Your task to perform on an android device: Go to accessibility settings Image 0: 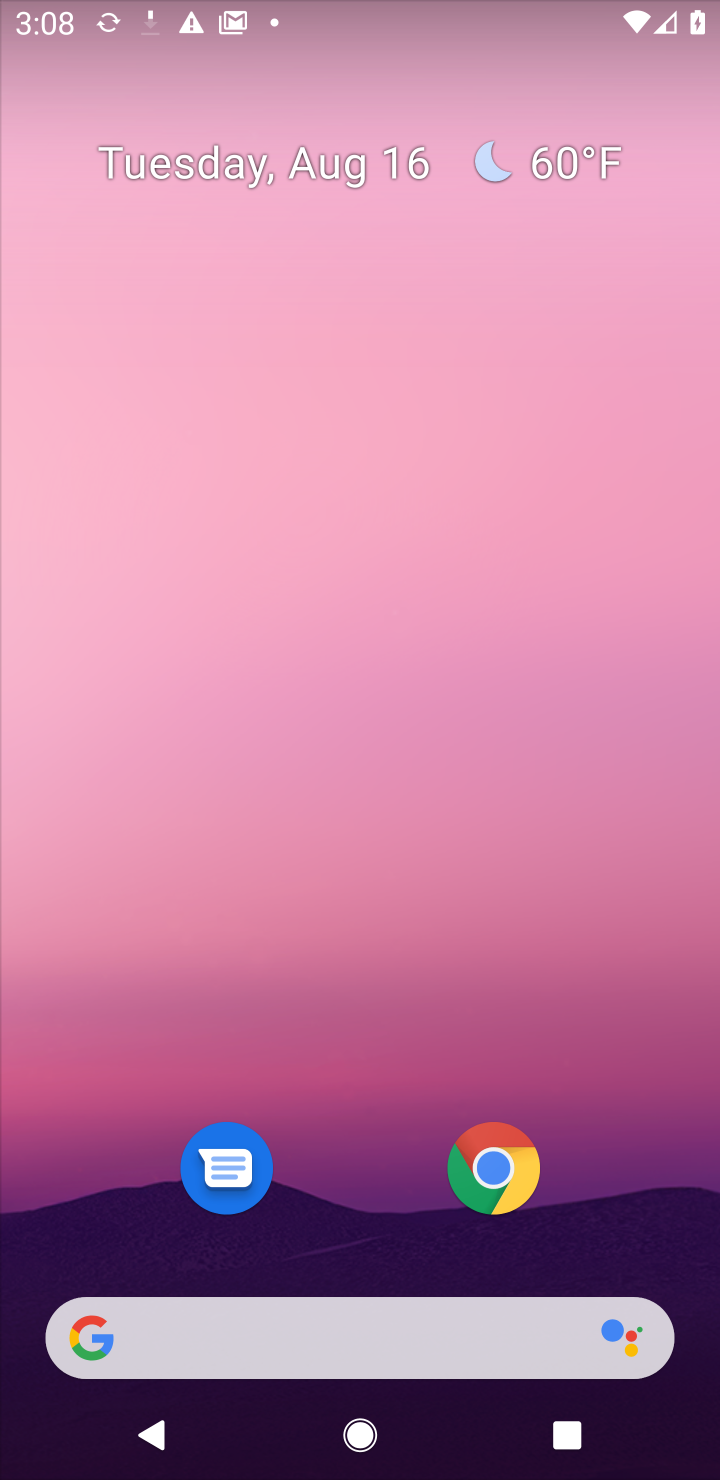
Step 0: press home button
Your task to perform on an android device: Go to accessibility settings Image 1: 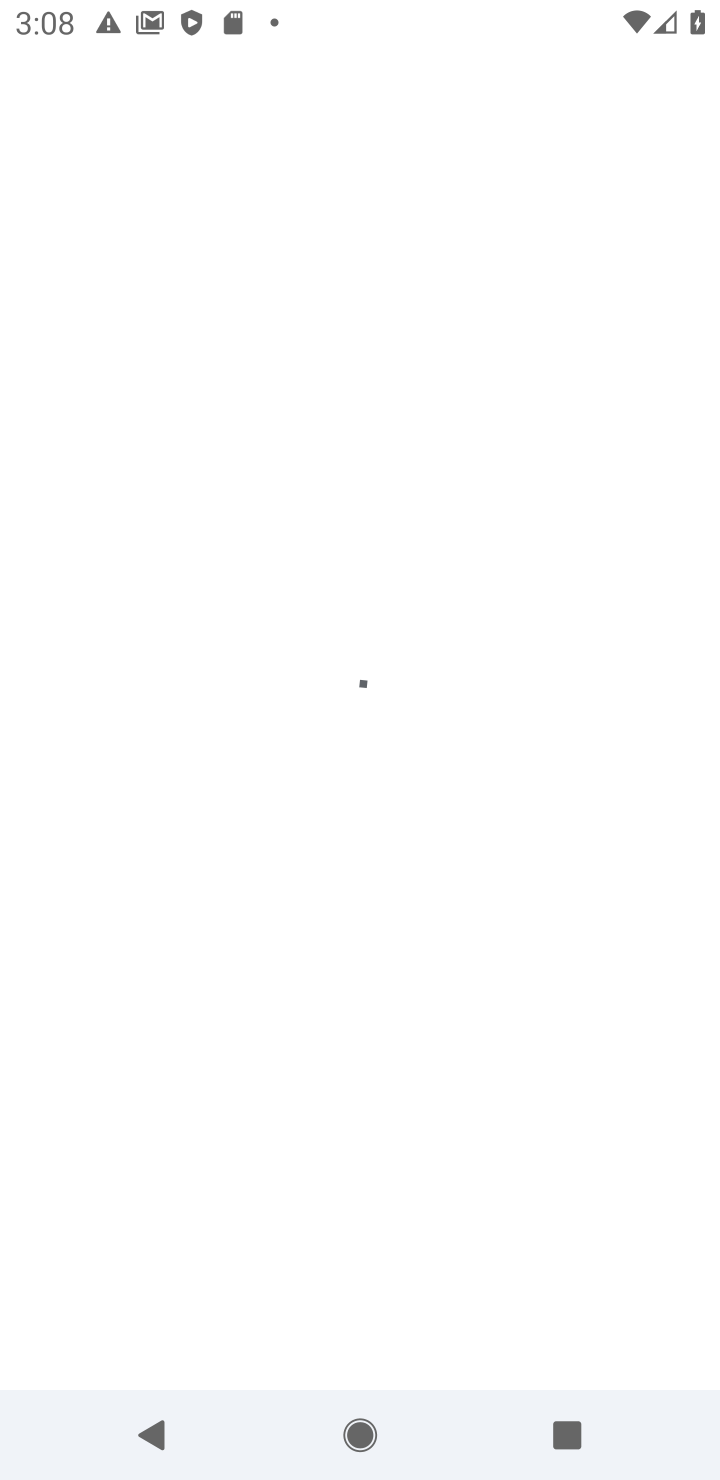
Step 1: drag from (415, 1117) to (487, 248)
Your task to perform on an android device: Go to accessibility settings Image 2: 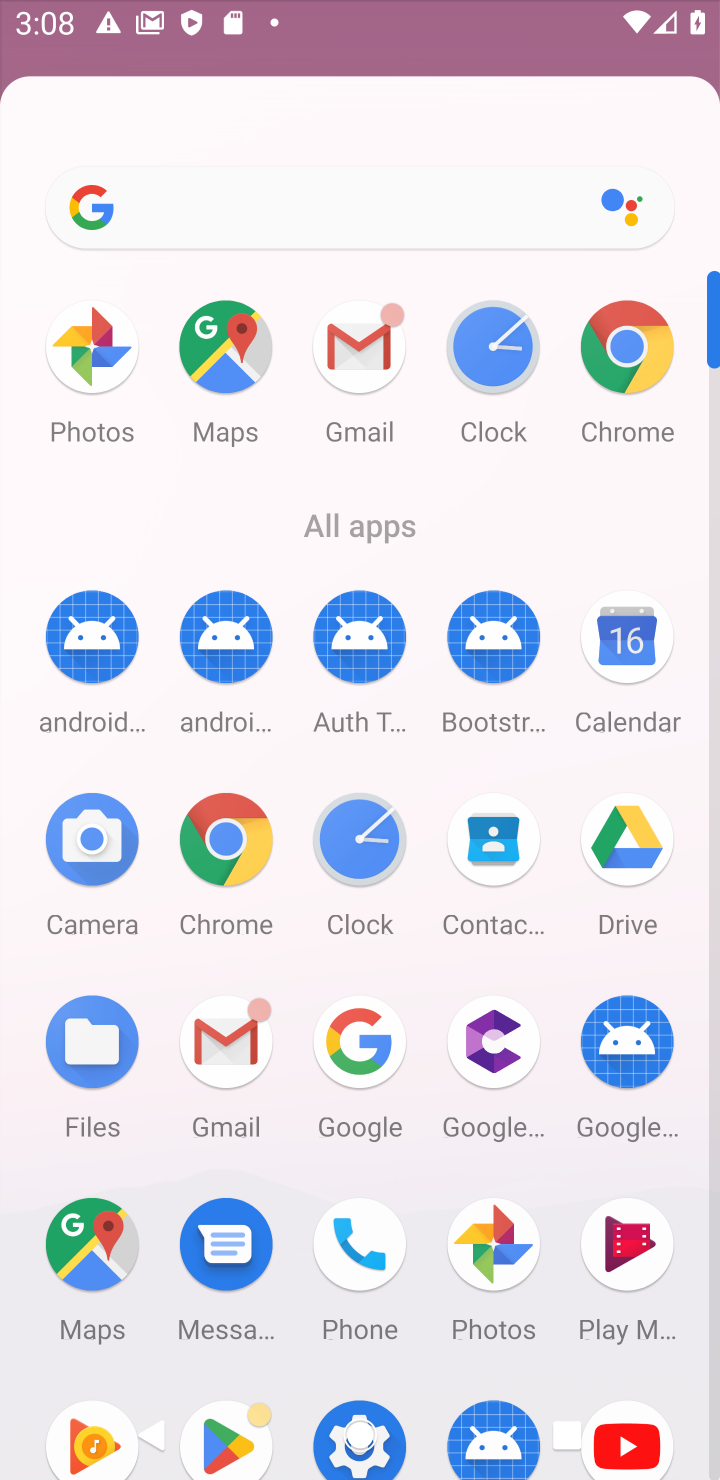
Step 2: drag from (309, 1337) to (478, 357)
Your task to perform on an android device: Go to accessibility settings Image 3: 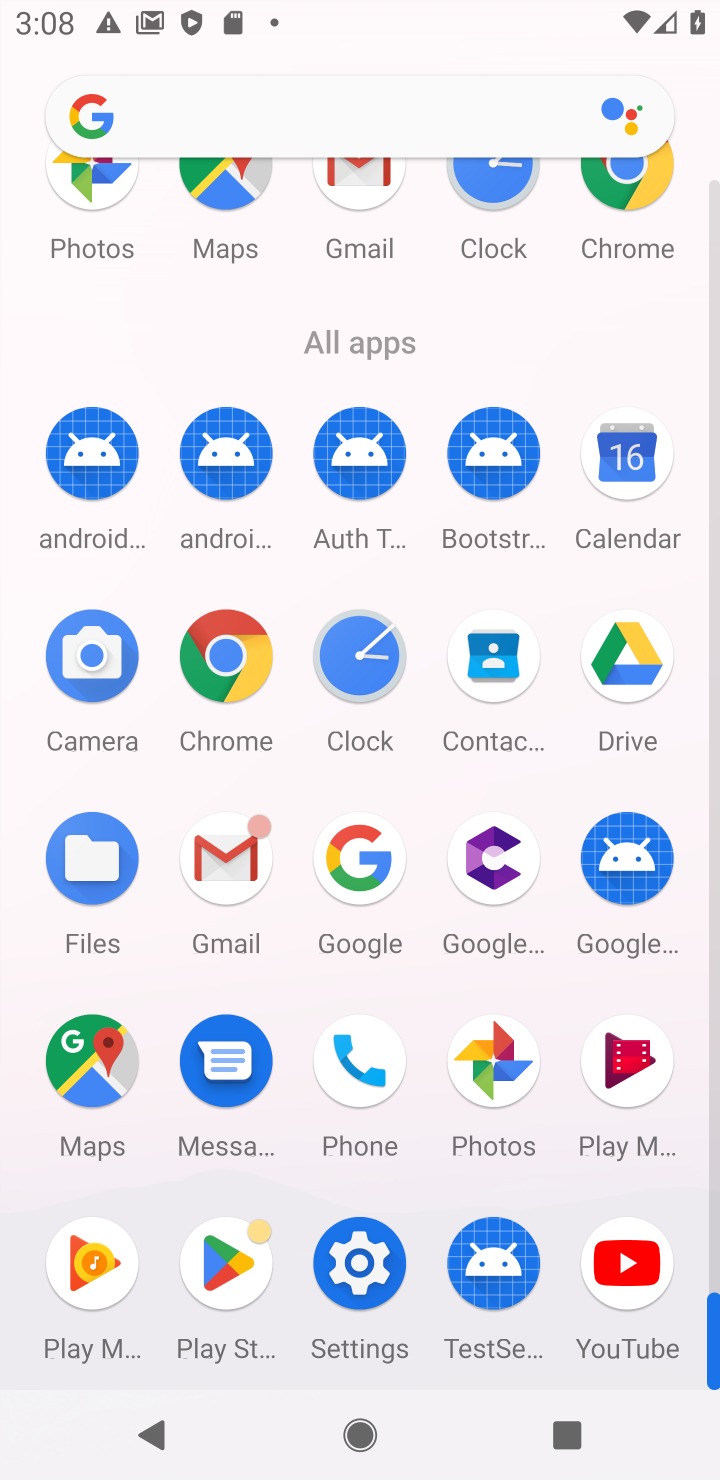
Step 3: click (356, 1279)
Your task to perform on an android device: Go to accessibility settings Image 4: 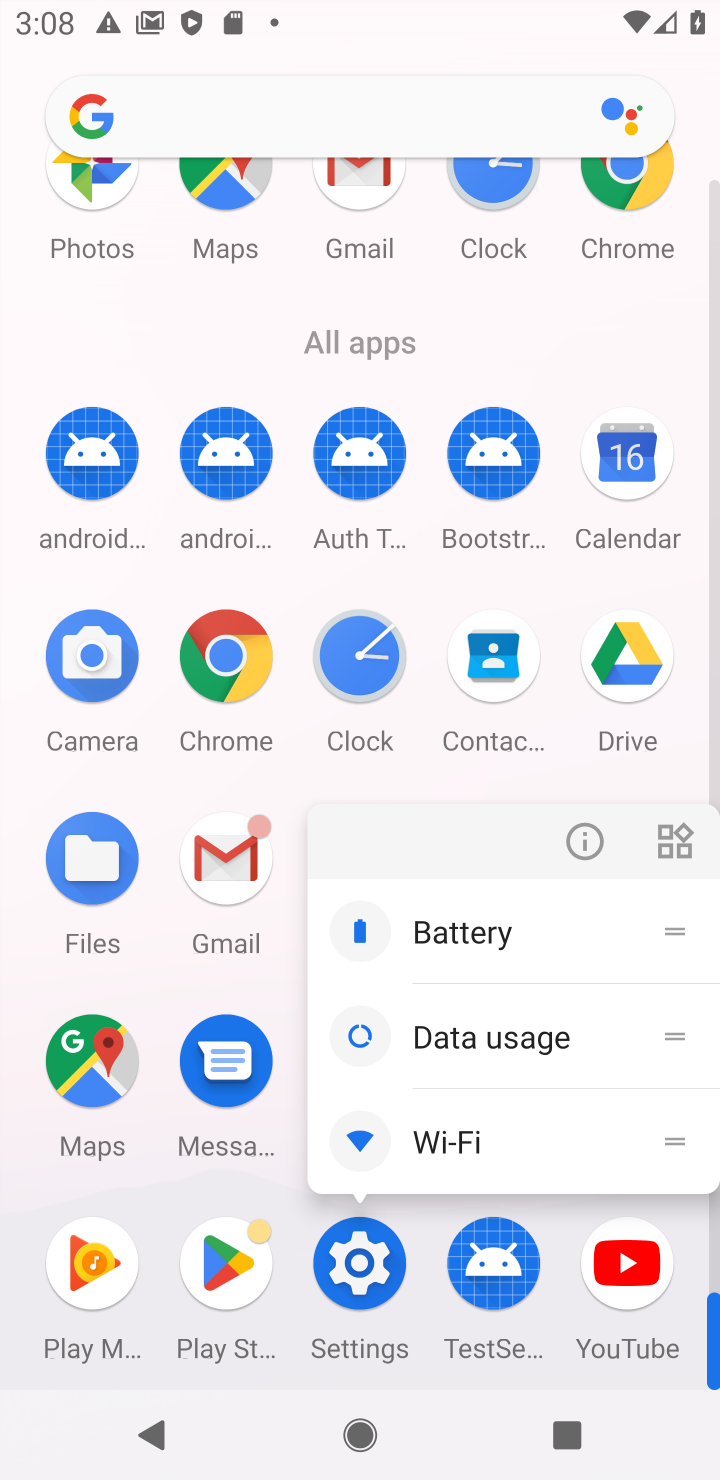
Step 4: click (359, 1261)
Your task to perform on an android device: Go to accessibility settings Image 5: 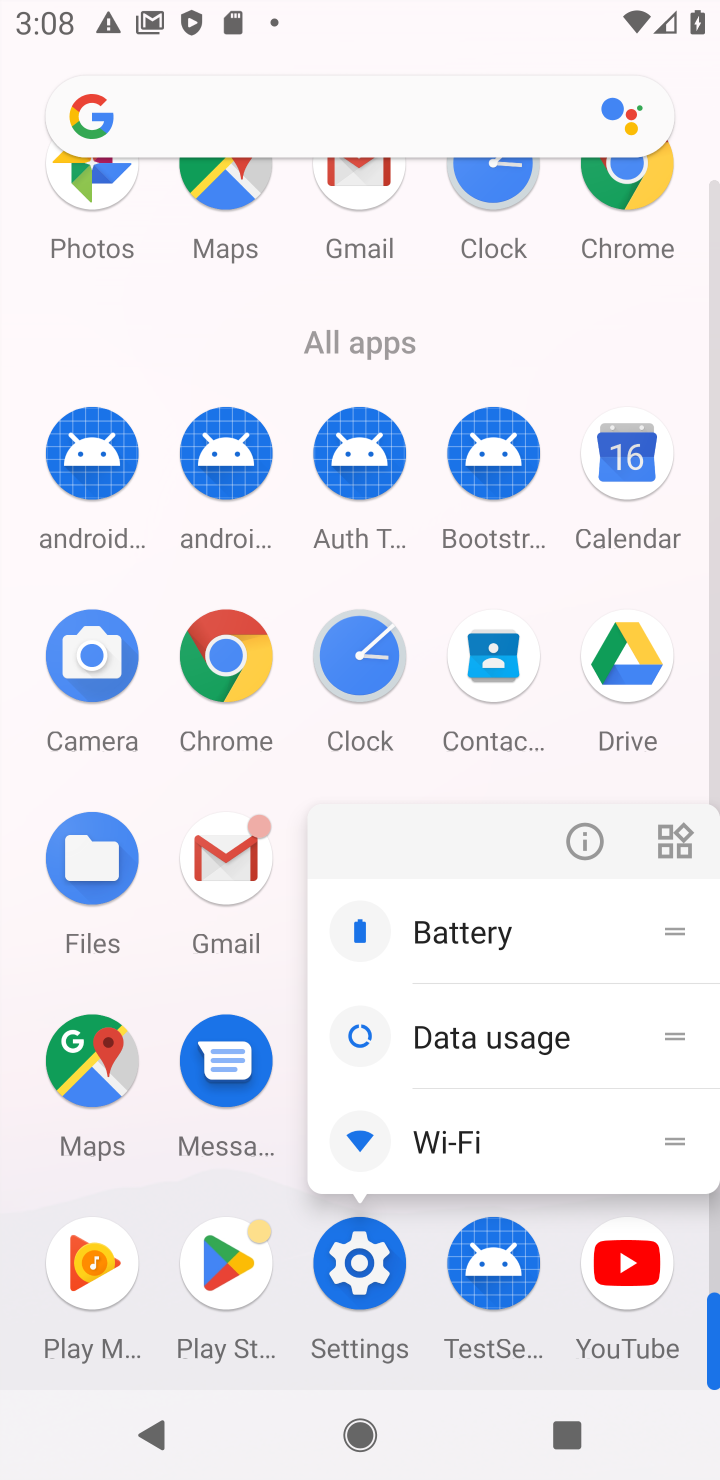
Step 5: click (359, 1261)
Your task to perform on an android device: Go to accessibility settings Image 6: 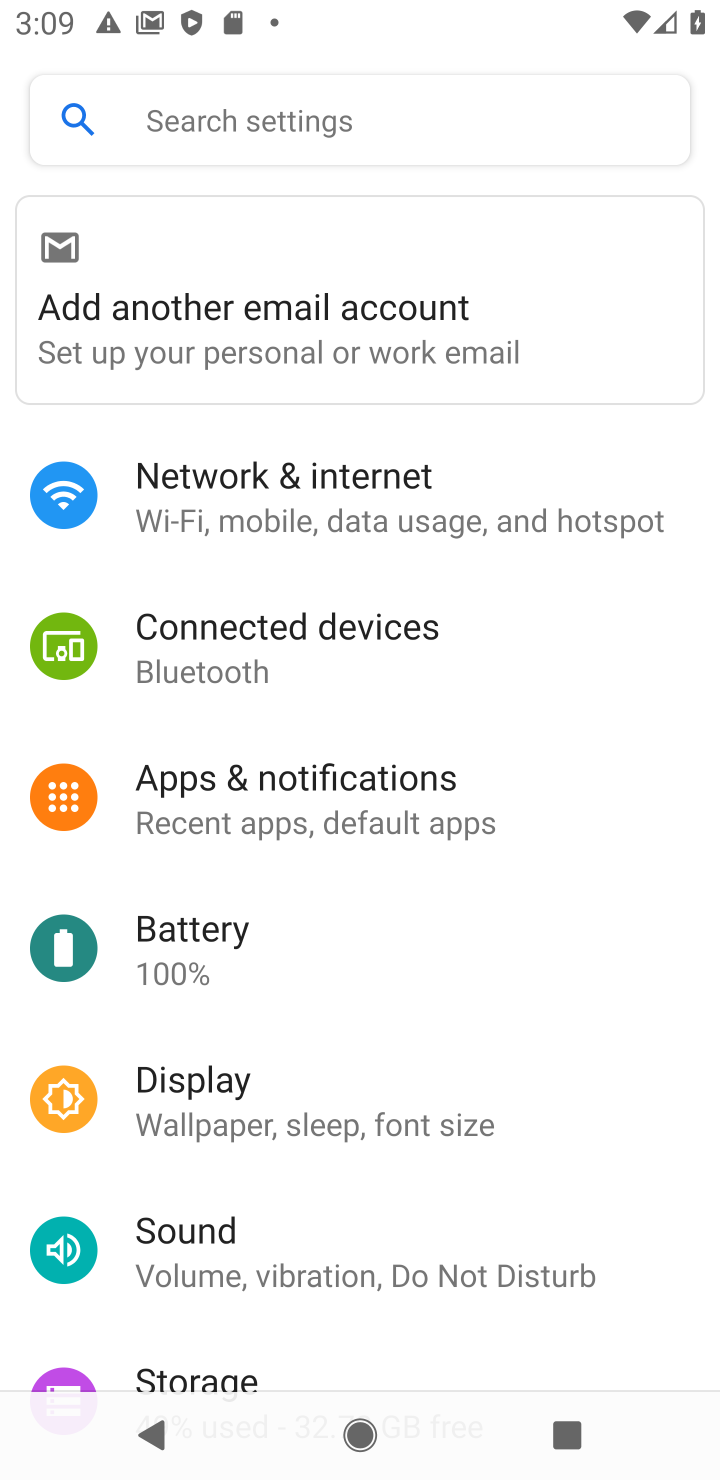
Step 6: drag from (460, 1226) to (574, 215)
Your task to perform on an android device: Go to accessibility settings Image 7: 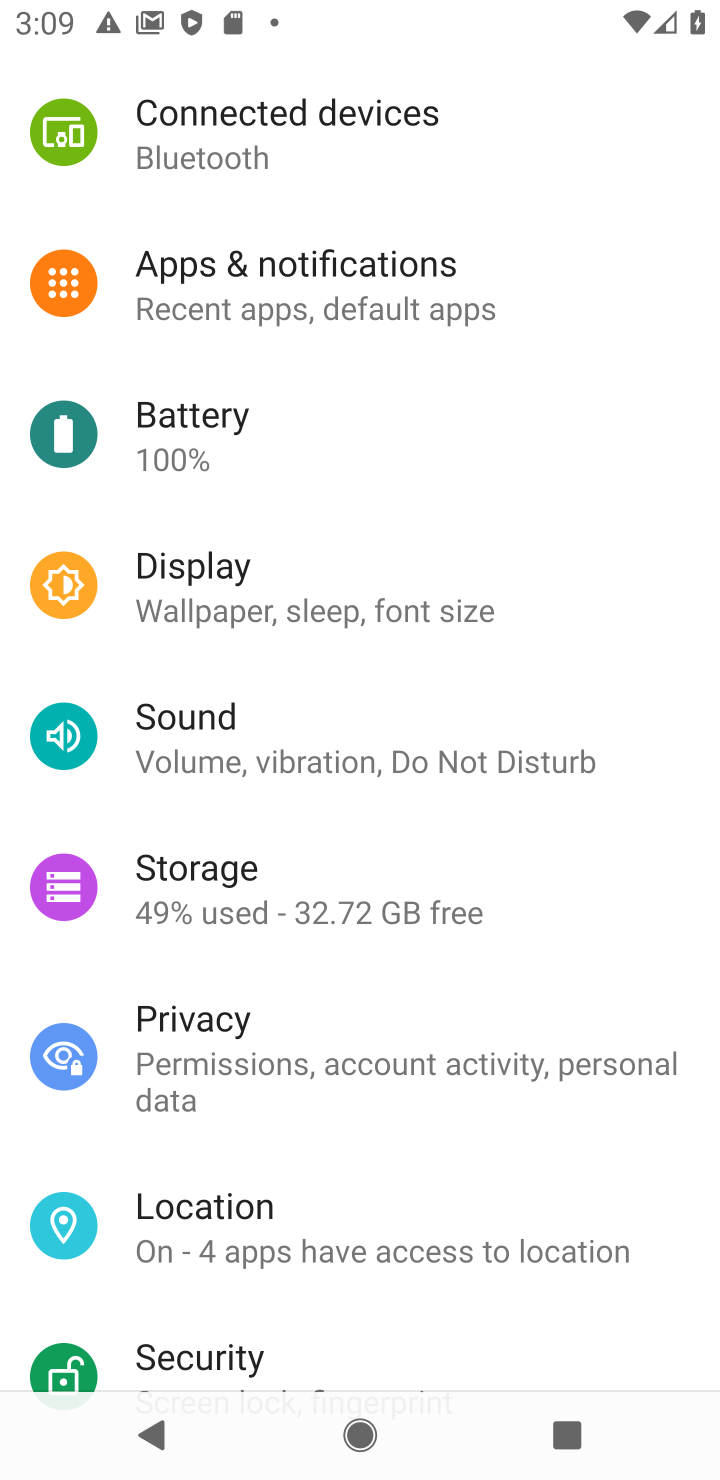
Step 7: drag from (391, 1273) to (473, 139)
Your task to perform on an android device: Go to accessibility settings Image 8: 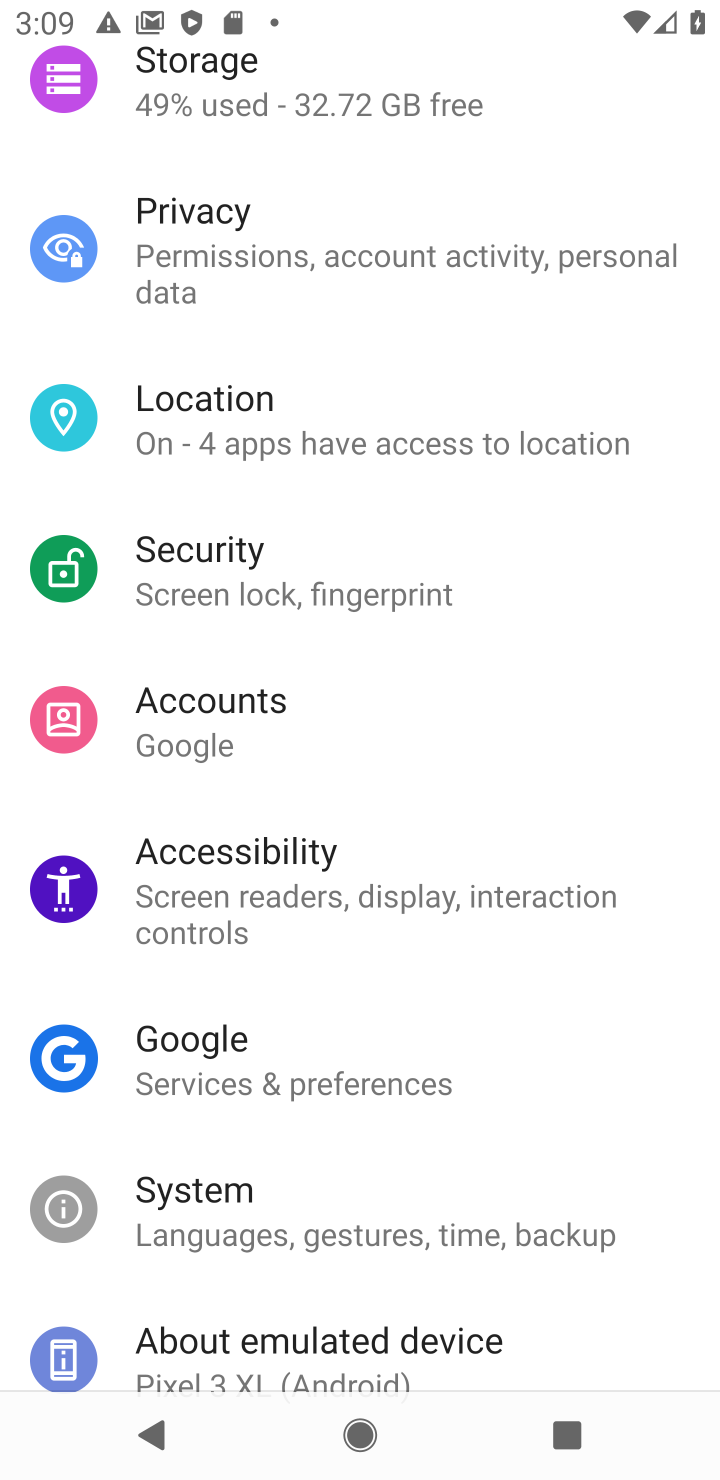
Step 8: click (295, 873)
Your task to perform on an android device: Go to accessibility settings Image 9: 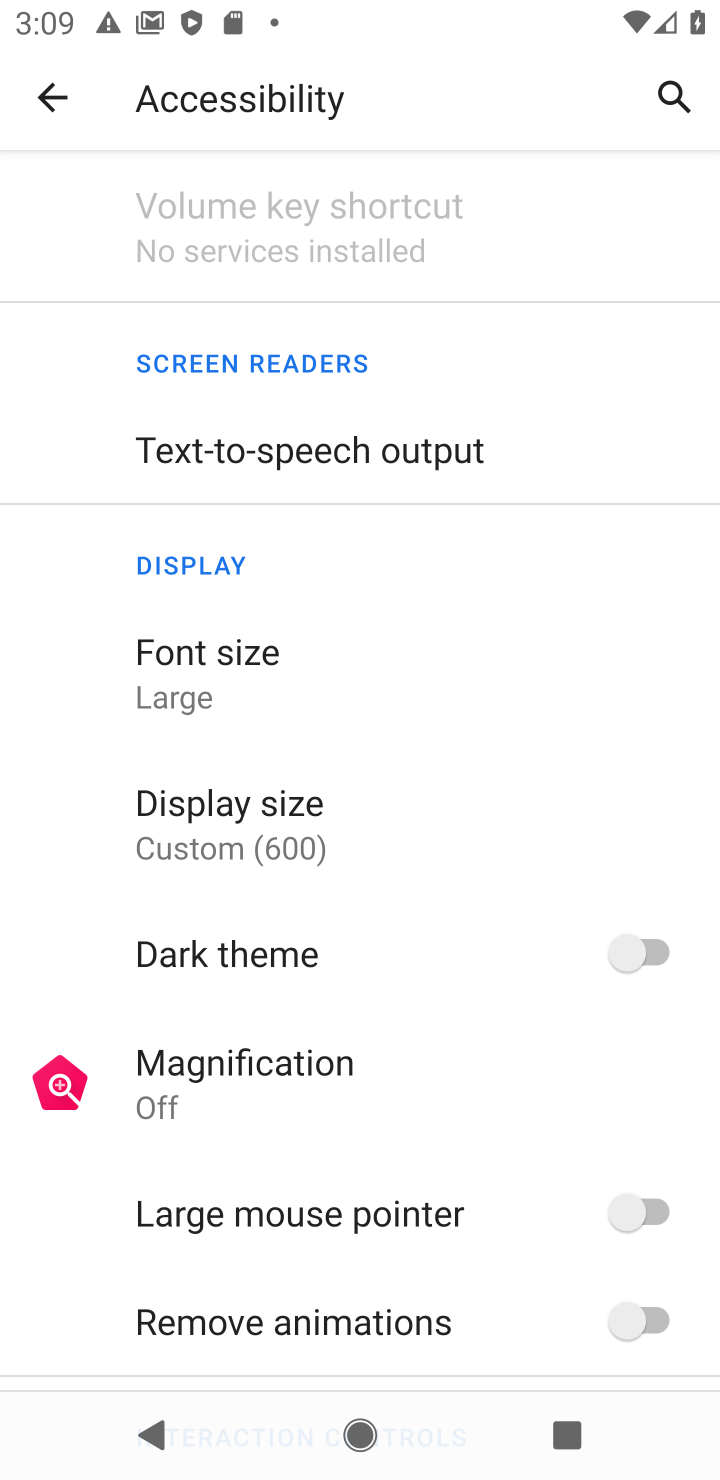
Step 9: task complete